Your task to perform on an android device: change the clock display to digital Image 0: 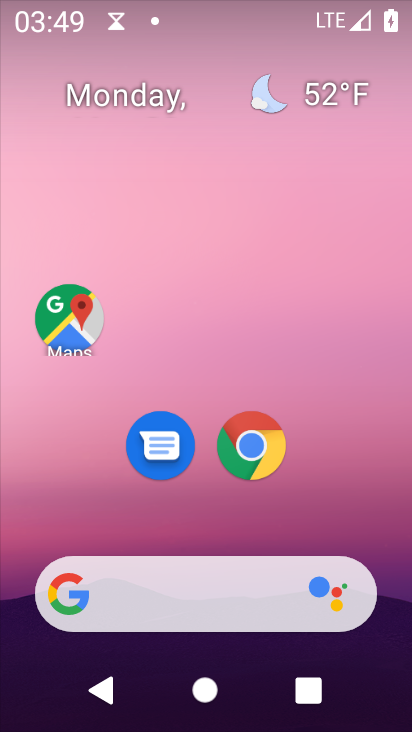
Step 0: drag from (206, 540) to (222, 128)
Your task to perform on an android device: change the clock display to digital Image 1: 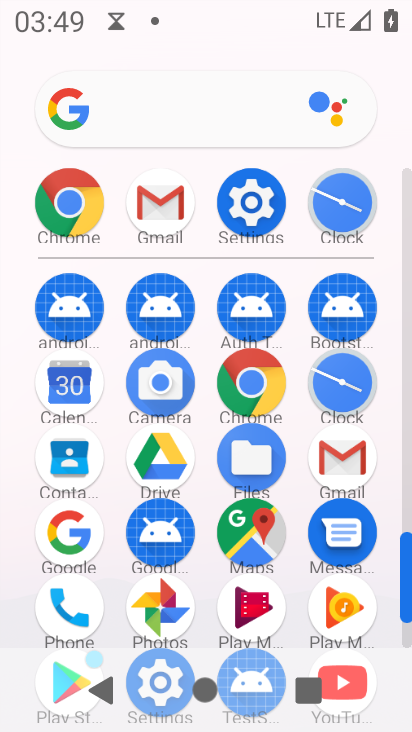
Step 1: click (347, 390)
Your task to perform on an android device: change the clock display to digital Image 2: 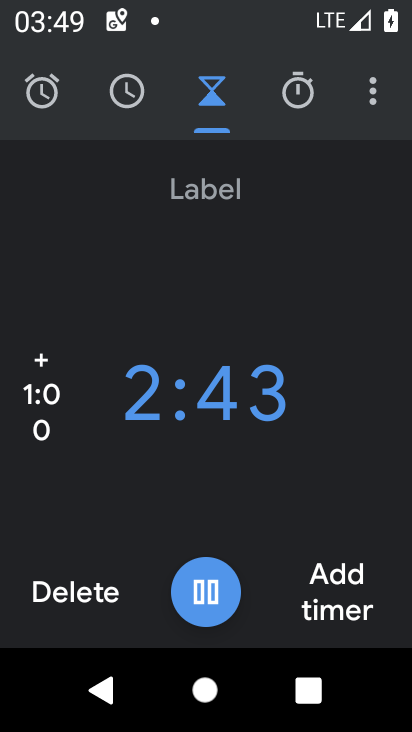
Step 2: click (373, 102)
Your task to perform on an android device: change the clock display to digital Image 3: 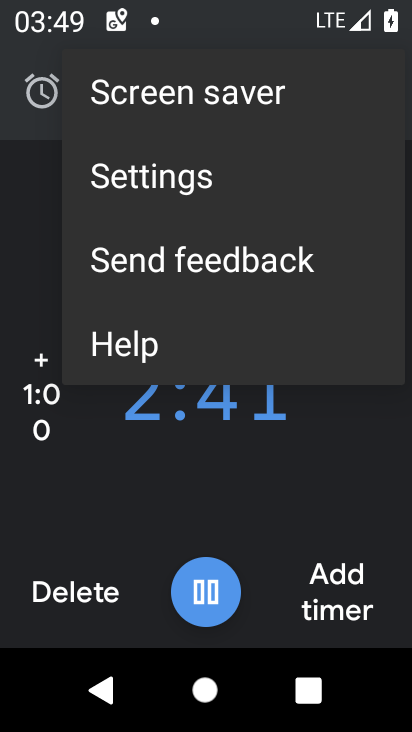
Step 3: click (178, 191)
Your task to perform on an android device: change the clock display to digital Image 4: 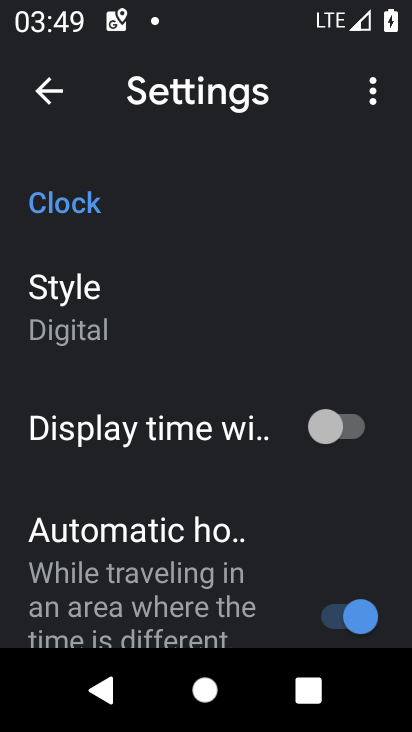
Step 4: click (122, 313)
Your task to perform on an android device: change the clock display to digital Image 5: 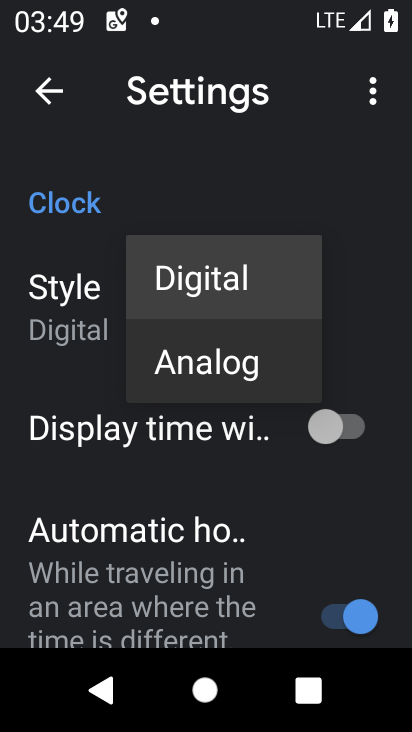
Step 5: task complete